Your task to perform on an android device: turn on sleep mode Image 0: 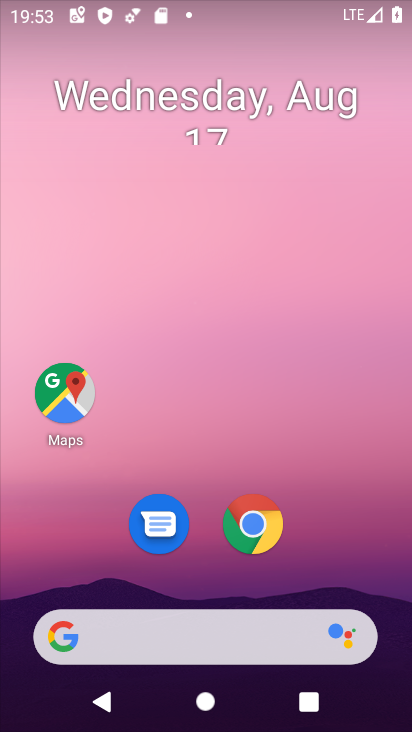
Step 0: drag from (313, 541) to (351, 22)
Your task to perform on an android device: turn on sleep mode Image 1: 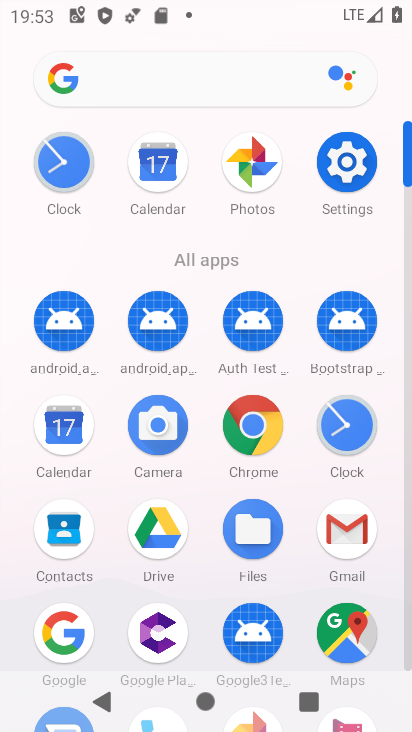
Step 1: click (345, 160)
Your task to perform on an android device: turn on sleep mode Image 2: 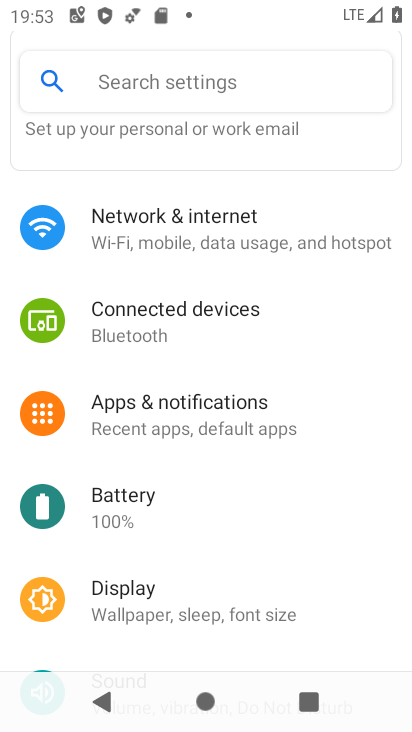
Step 2: click (209, 606)
Your task to perform on an android device: turn on sleep mode Image 3: 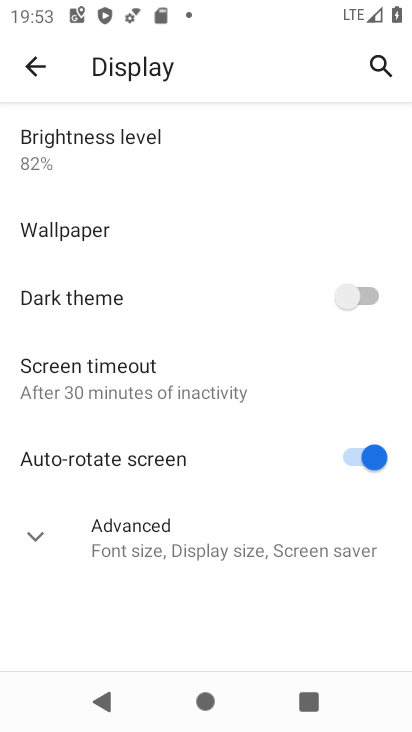
Step 3: click (37, 536)
Your task to perform on an android device: turn on sleep mode Image 4: 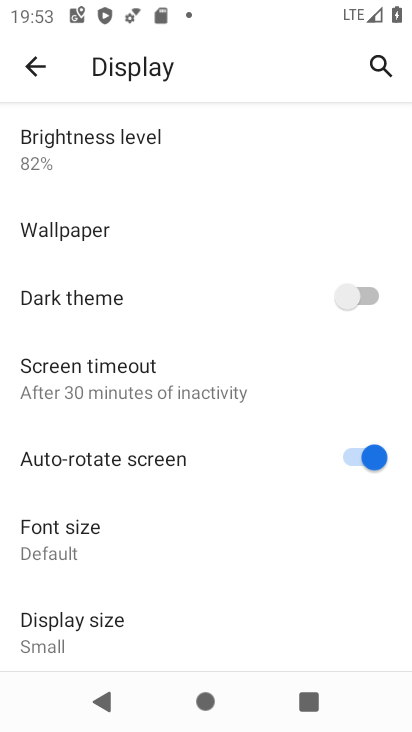
Step 4: task complete